Your task to perform on an android device: turn on bluetooth scan Image 0: 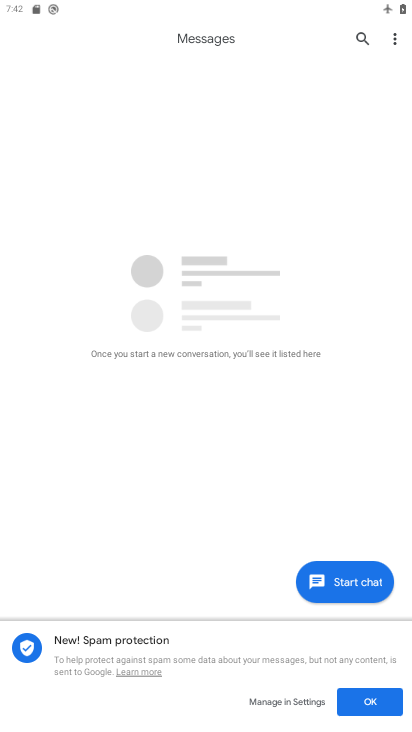
Step 0: press home button
Your task to perform on an android device: turn on bluetooth scan Image 1: 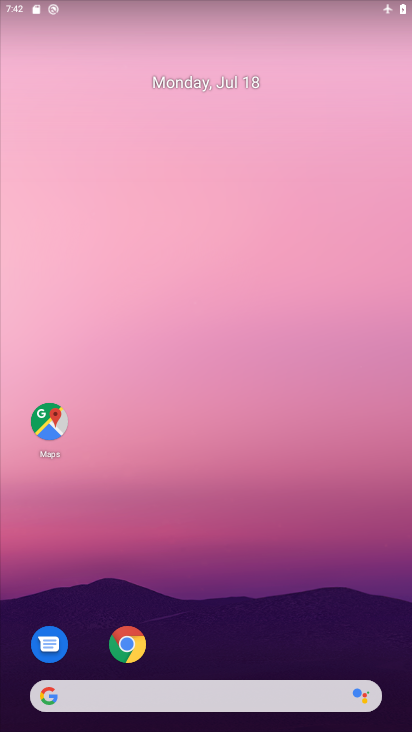
Step 1: drag from (366, 586) to (378, 94)
Your task to perform on an android device: turn on bluetooth scan Image 2: 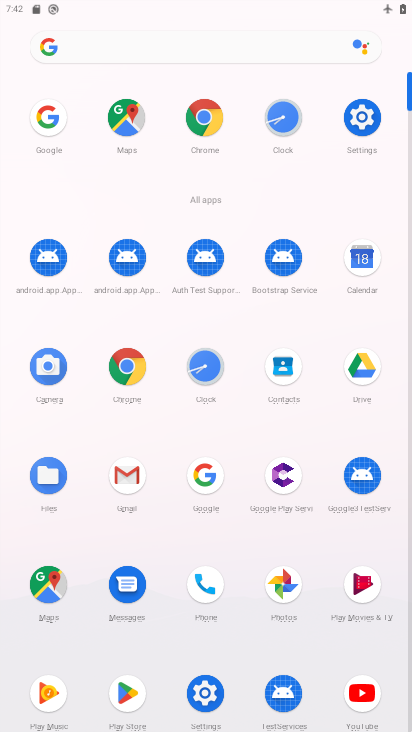
Step 2: click (375, 123)
Your task to perform on an android device: turn on bluetooth scan Image 3: 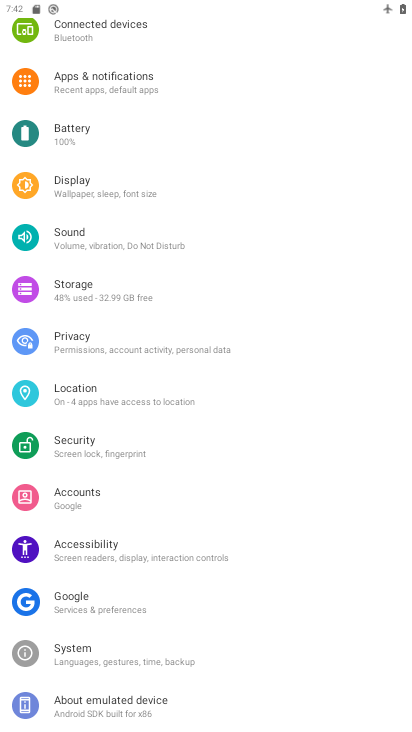
Step 3: drag from (327, 220) to (330, 275)
Your task to perform on an android device: turn on bluetooth scan Image 4: 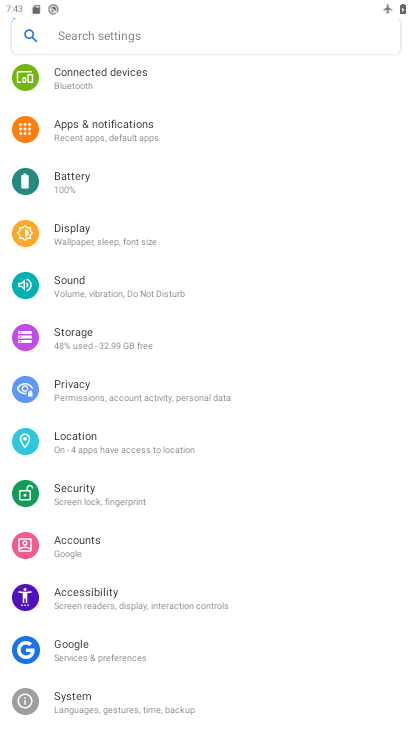
Step 4: drag from (331, 194) to (340, 258)
Your task to perform on an android device: turn on bluetooth scan Image 5: 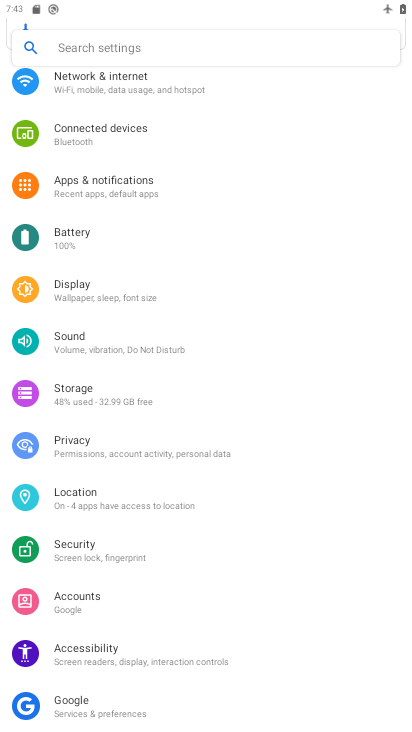
Step 5: drag from (344, 179) to (339, 260)
Your task to perform on an android device: turn on bluetooth scan Image 6: 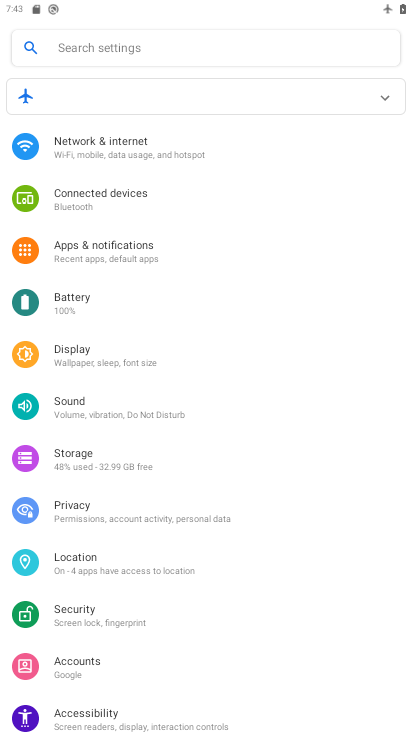
Step 6: drag from (336, 198) to (339, 302)
Your task to perform on an android device: turn on bluetooth scan Image 7: 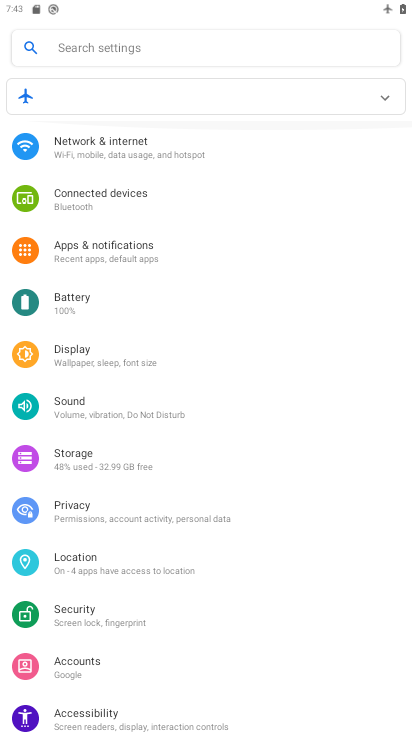
Step 7: drag from (326, 414) to (331, 343)
Your task to perform on an android device: turn on bluetooth scan Image 8: 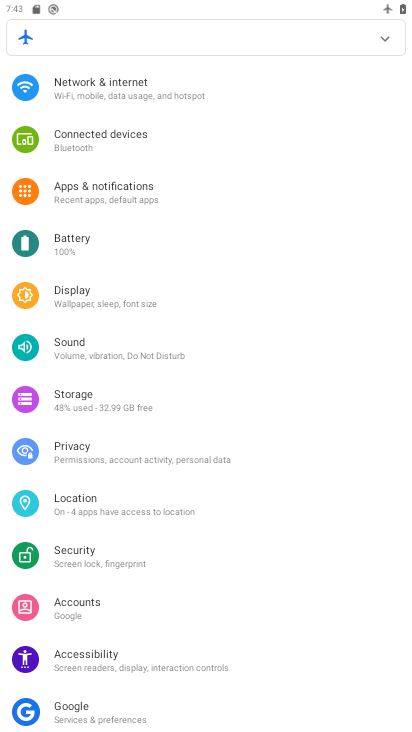
Step 8: drag from (329, 423) to (332, 362)
Your task to perform on an android device: turn on bluetooth scan Image 9: 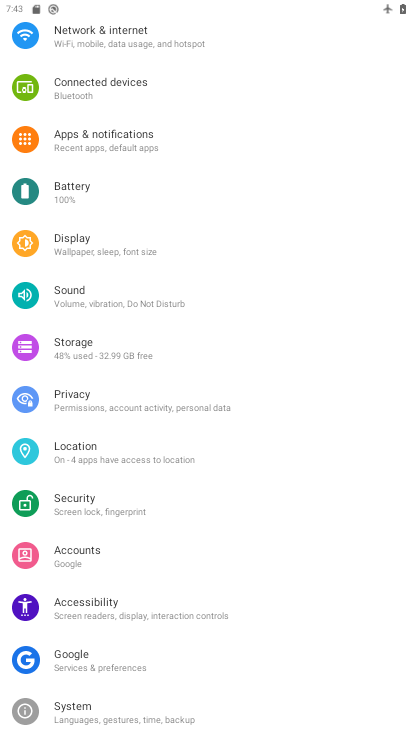
Step 9: drag from (325, 407) to (328, 332)
Your task to perform on an android device: turn on bluetooth scan Image 10: 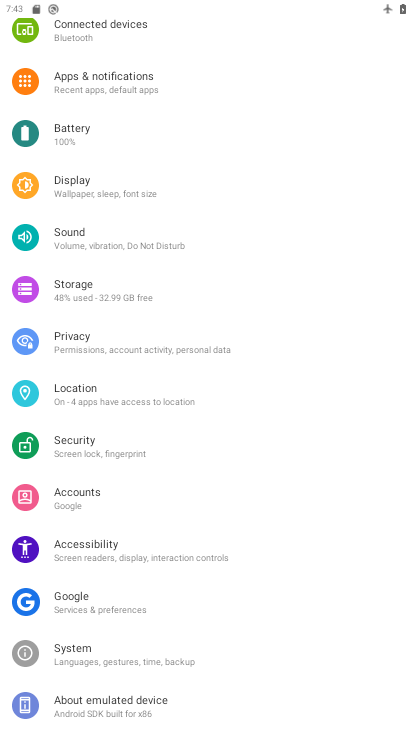
Step 10: drag from (323, 382) to (328, 281)
Your task to perform on an android device: turn on bluetooth scan Image 11: 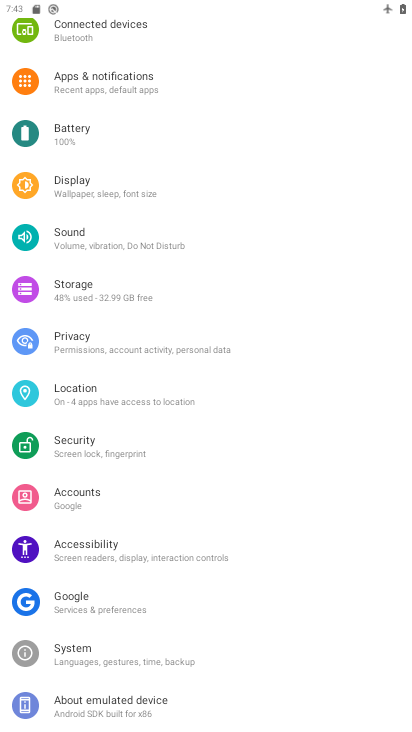
Step 11: click (194, 404)
Your task to perform on an android device: turn on bluetooth scan Image 12: 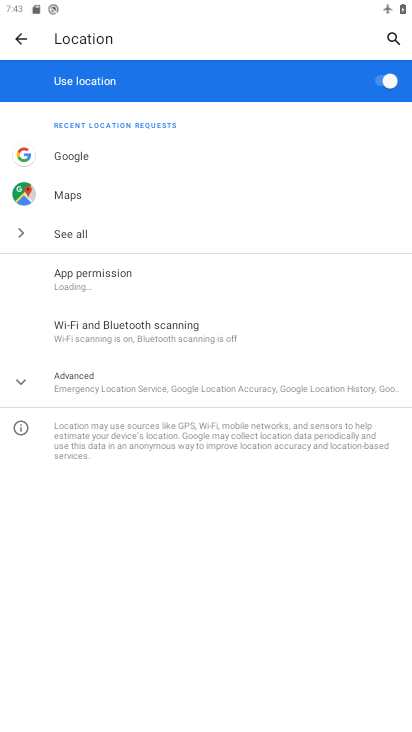
Step 12: click (226, 338)
Your task to perform on an android device: turn on bluetooth scan Image 13: 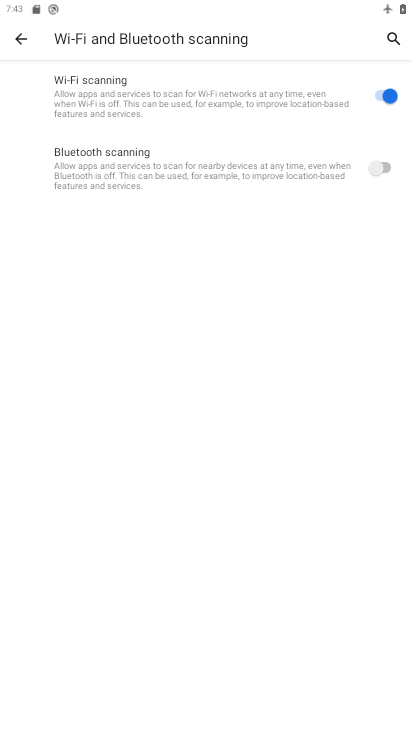
Step 13: click (375, 169)
Your task to perform on an android device: turn on bluetooth scan Image 14: 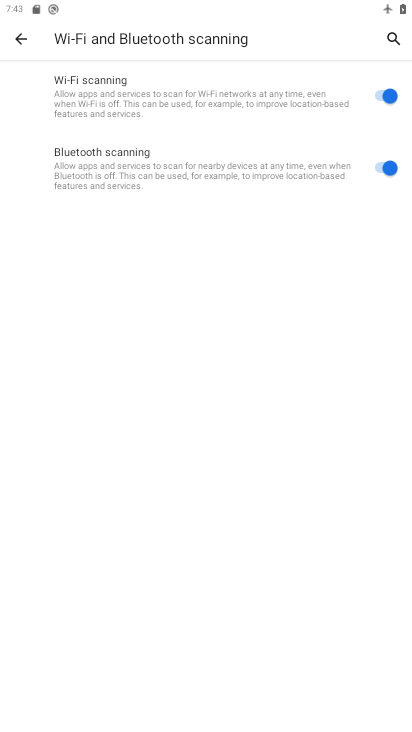
Step 14: task complete